Your task to perform on an android device: check battery use Image 0: 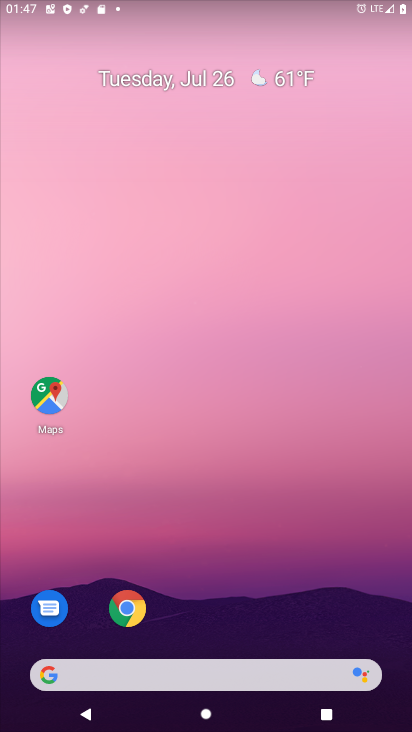
Step 0: drag from (60, 393) to (190, 132)
Your task to perform on an android device: check battery use Image 1: 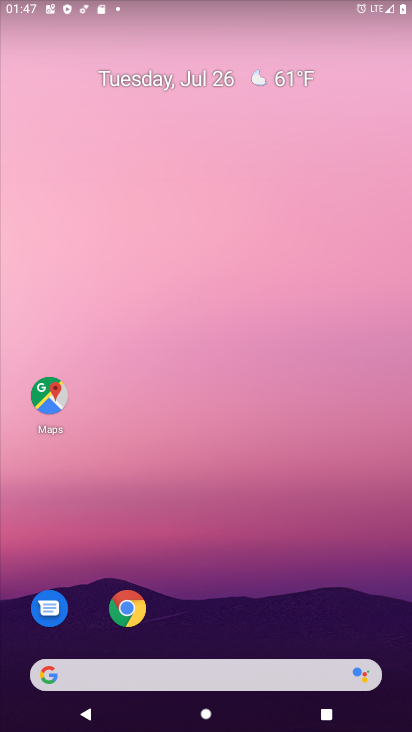
Step 1: drag from (14, 266) to (143, 197)
Your task to perform on an android device: check battery use Image 2: 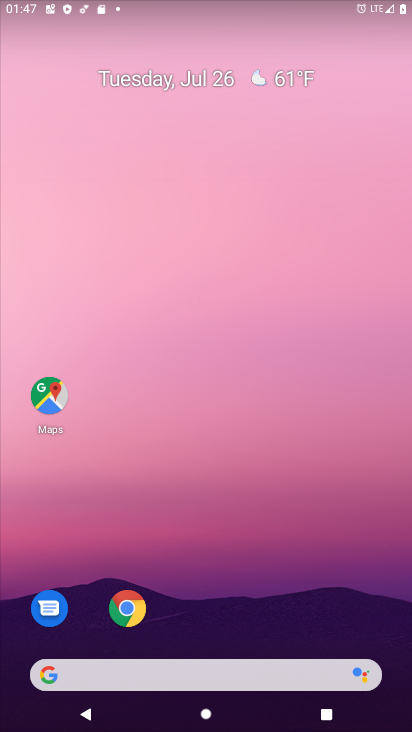
Step 2: drag from (4, 649) to (111, 9)
Your task to perform on an android device: check battery use Image 3: 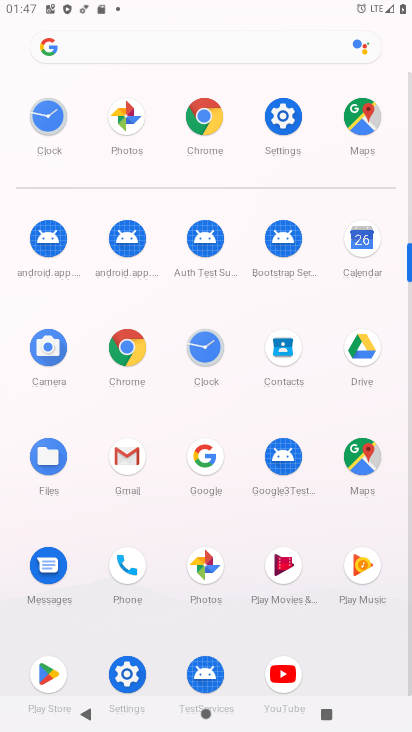
Step 3: click (276, 122)
Your task to perform on an android device: check battery use Image 4: 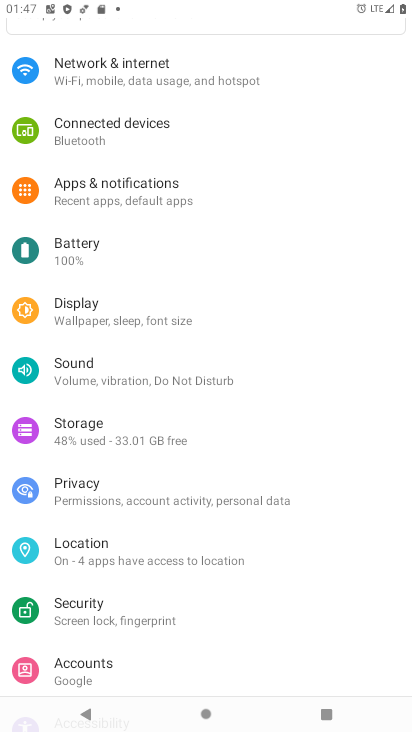
Step 4: click (65, 247)
Your task to perform on an android device: check battery use Image 5: 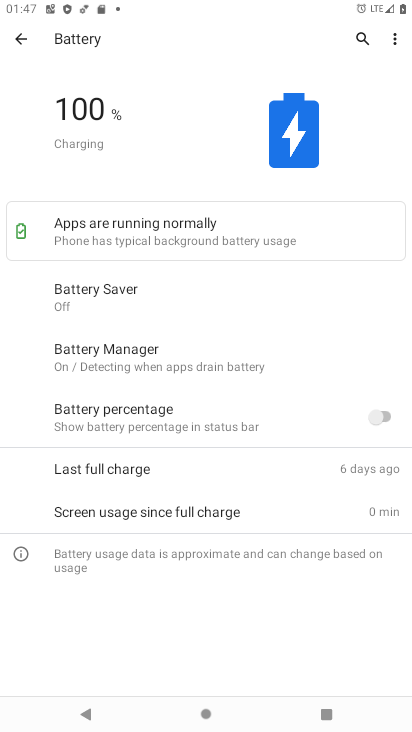
Step 5: task complete